Your task to perform on an android device: toggle priority inbox in the gmail app Image 0: 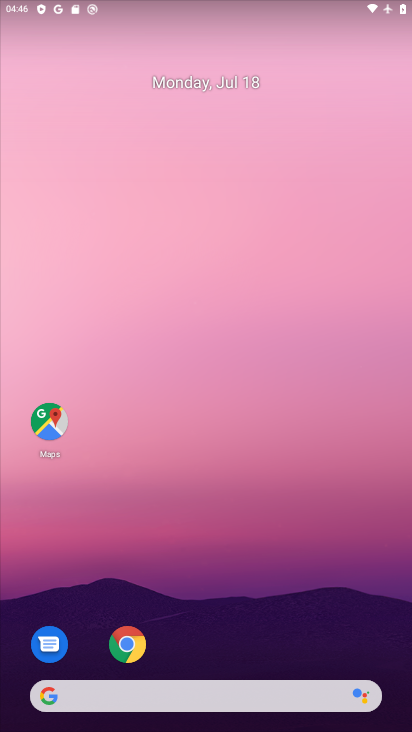
Step 0: press home button
Your task to perform on an android device: toggle priority inbox in the gmail app Image 1: 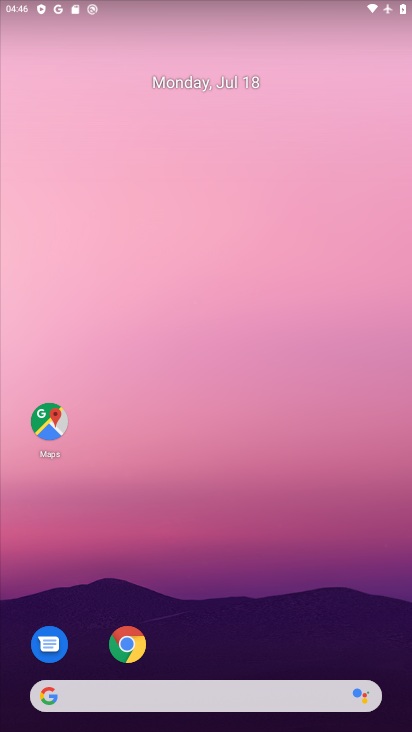
Step 1: drag from (210, 633) to (155, 1)
Your task to perform on an android device: toggle priority inbox in the gmail app Image 2: 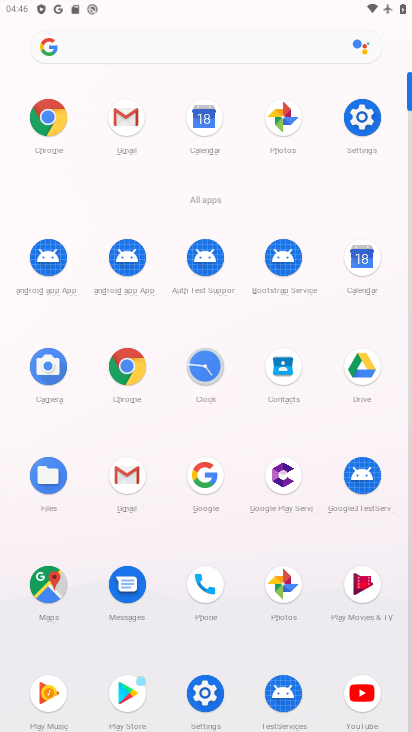
Step 2: click (125, 124)
Your task to perform on an android device: toggle priority inbox in the gmail app Image 3: 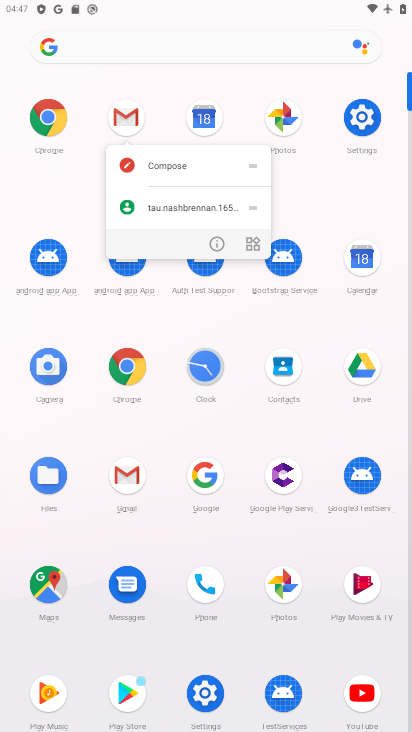
Step 3: click (124, 115)
Your task to perform on an android device: toggle priority inbox in the gmail app Image 4: 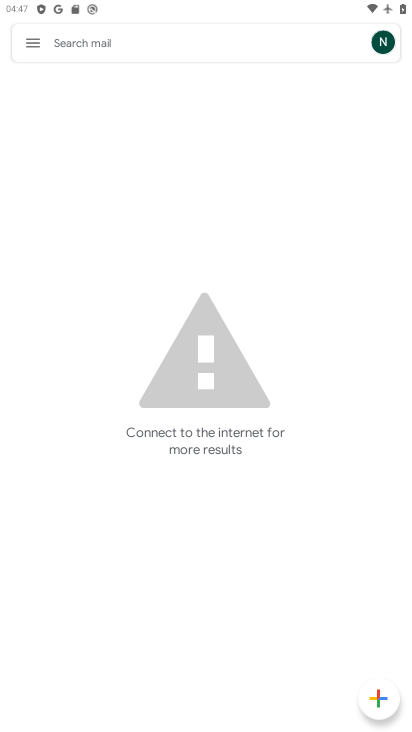
Step 4: click (39, 44)
Your task to perform on an android device: toggle priority inbox in the gmail app Image 5: 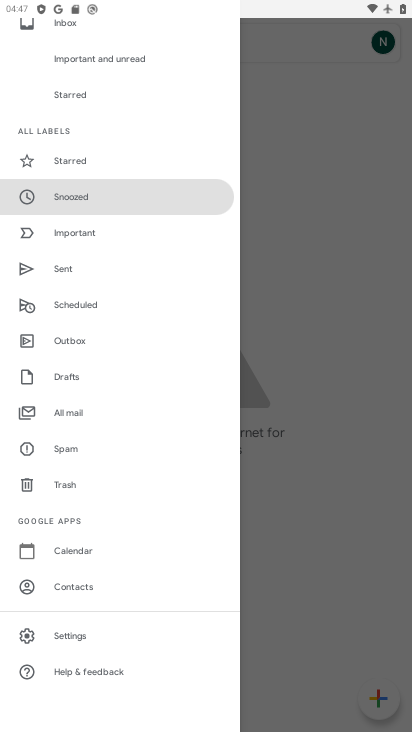
Step 5: click (56, 638)
Your task to perform on an android device: toggle priority inbox in the gmail app Image 6: 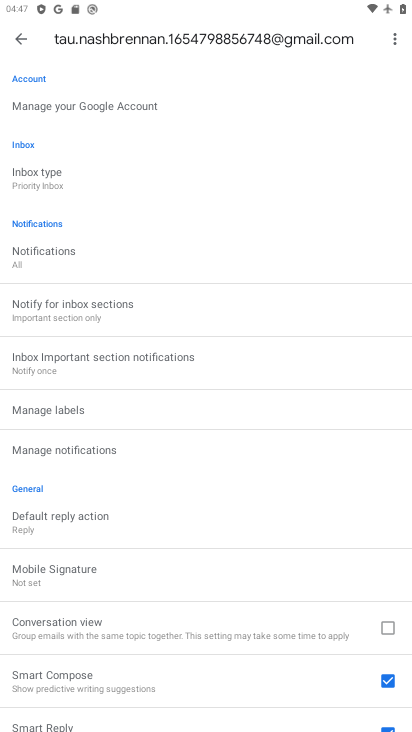
Step 6: click (27, 182)
Your task to perform on an android device: toggle priority inbox in the gmail app Image 7: 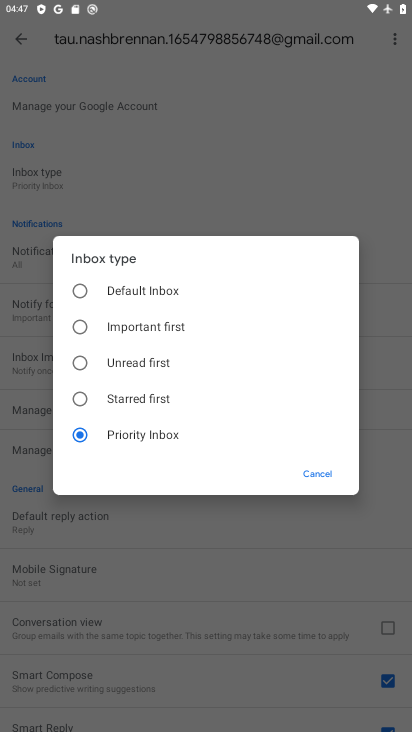
Step 7: click (82, 294)
Your task to perform on an android device: toggle priority inbox in the gmail app Image 8: 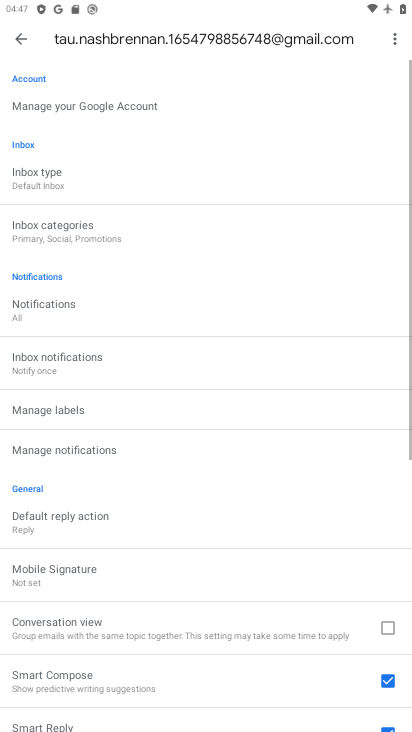
Step 8: task complete